Your task to perform on an android device: Check the settings for the Google Photos app Image 0: 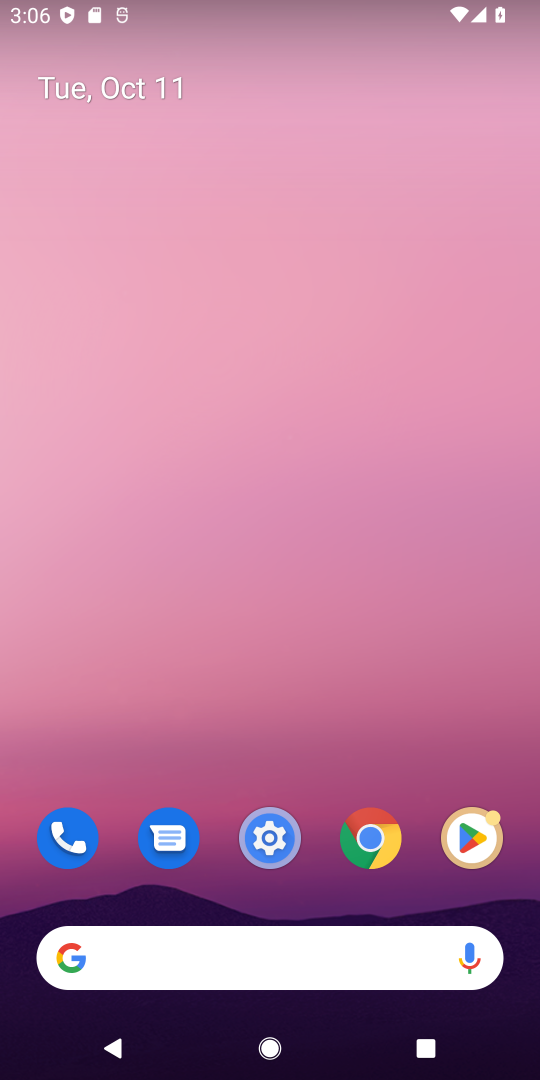
Step 0: drag from (279, 772) to (301, 208)
Your task to perform on an android device: Check the settings for the Google Photos app Image 1: 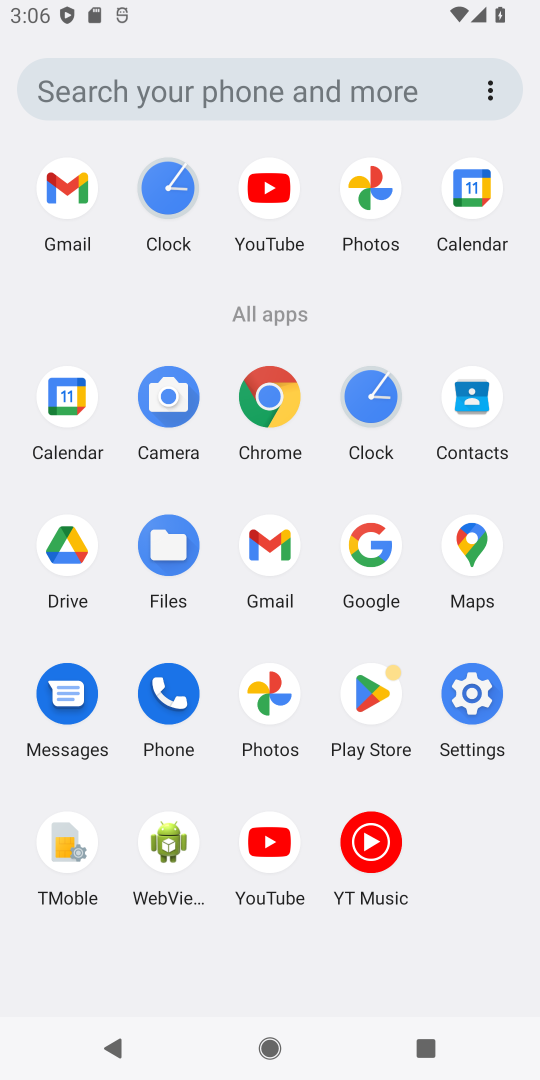
Step 1: click (375, 207)
Your task to perform on an android device: Check the settings for the Google Photos app Image 2: 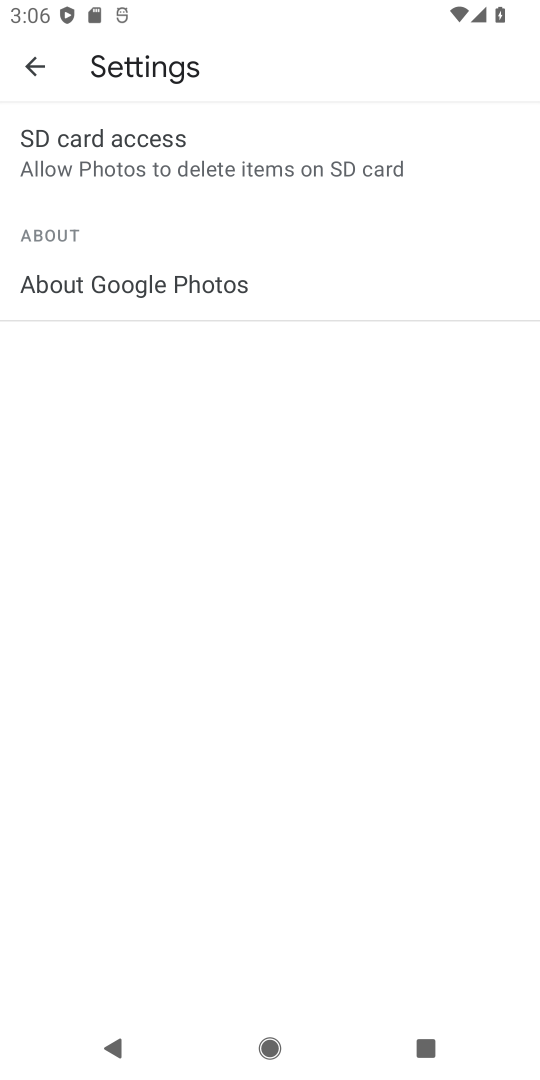
Step 2: click (18, 67)
Your task to perform on an android device: Check the settings for the Google Photos app Image 3: 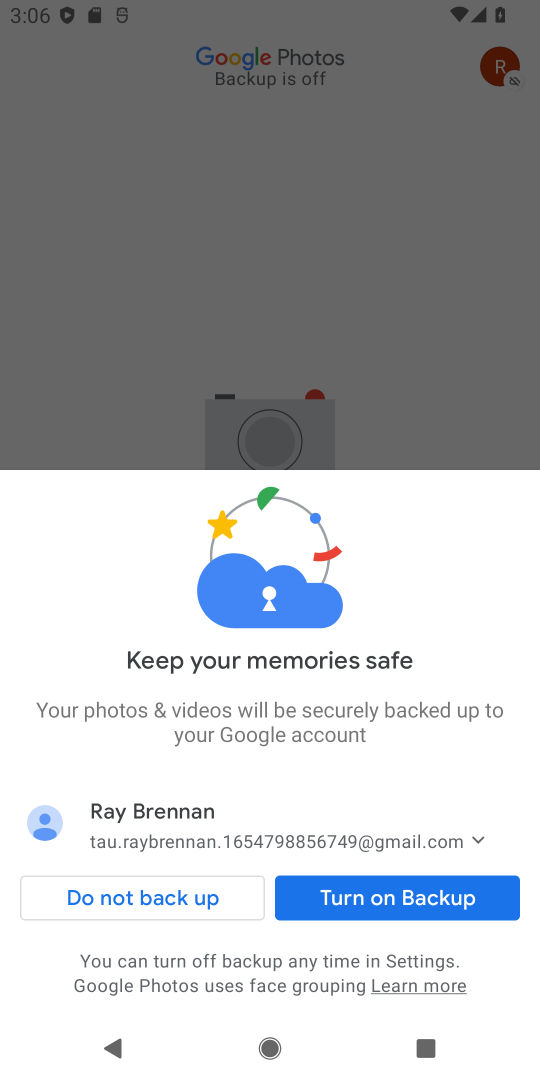
Step 3: click (218, 882)
Your task to perform on an android device: Check the settings for the Google Photos app Image 4: 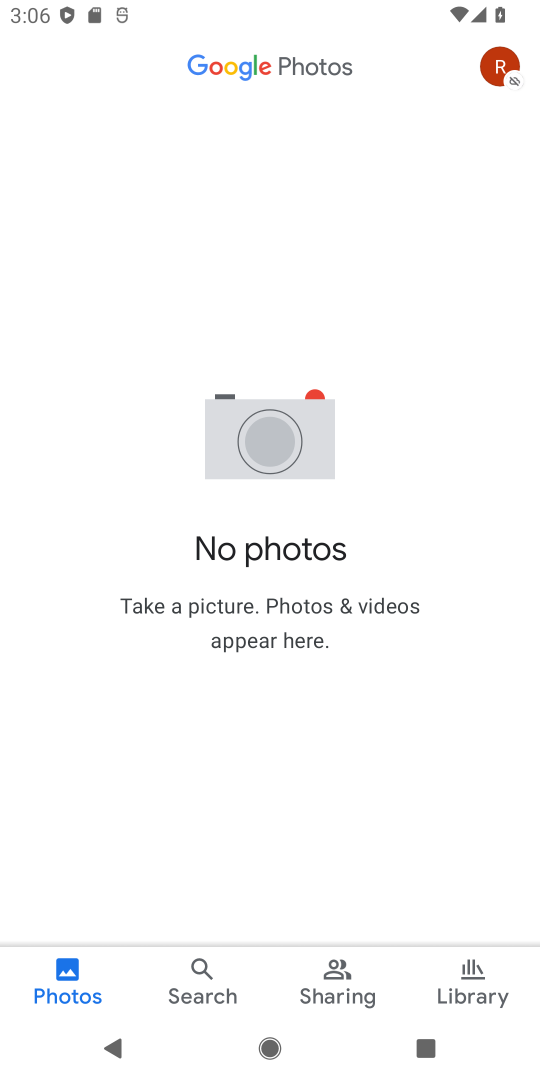
Step 4: click (509, 85)
Your task to perform on an android device: Check the settings for the Google Photos app Image 5: 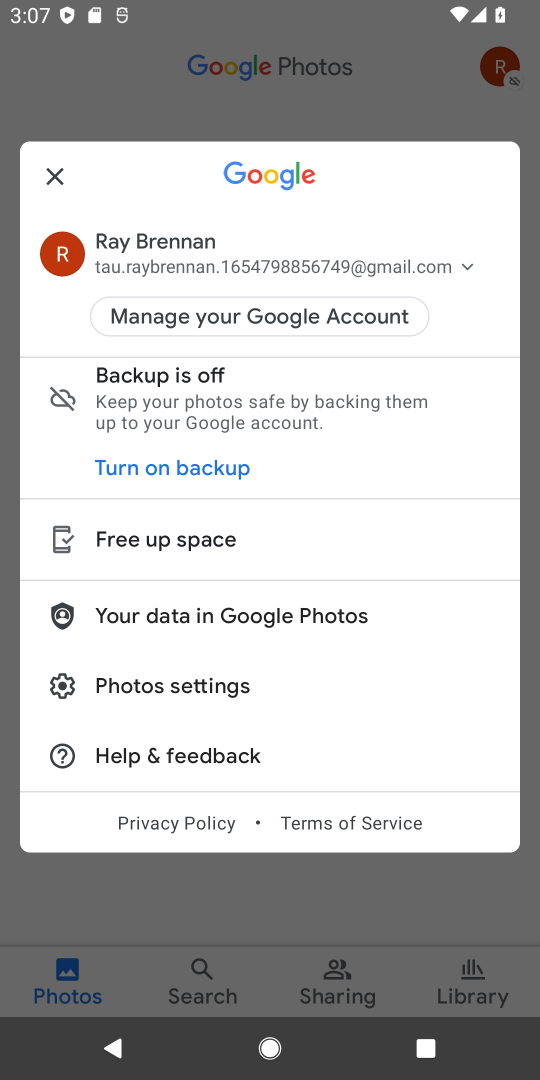
Step 5: drag from (292, 735) to (326, 294)
Your task to perform on an android device: Check the settings for the Google Photos app Image 6: 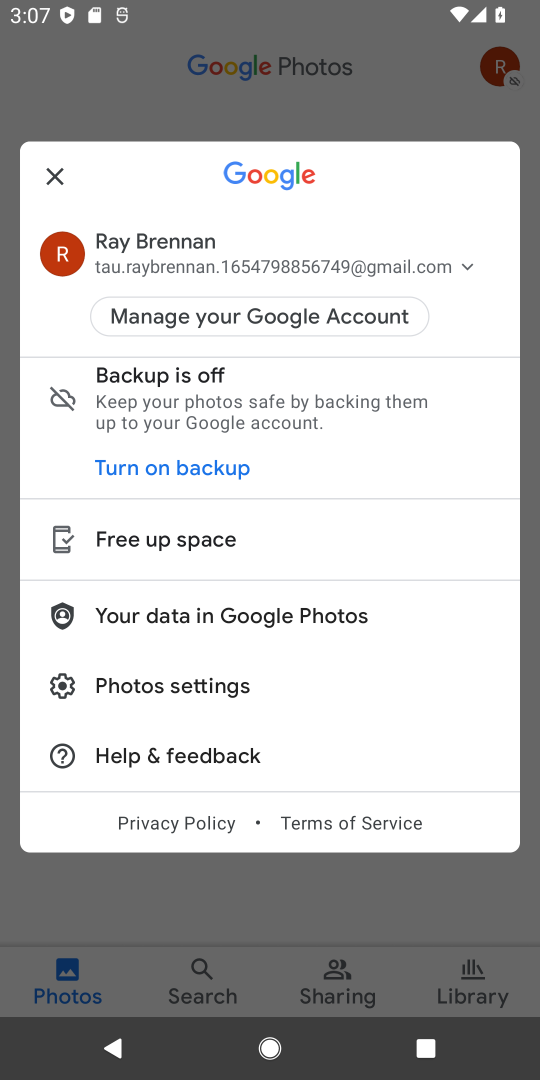
Step 6: click (246, 668)
Your task to perform on an android device: Check the settings for the Google Photos app Image 7: 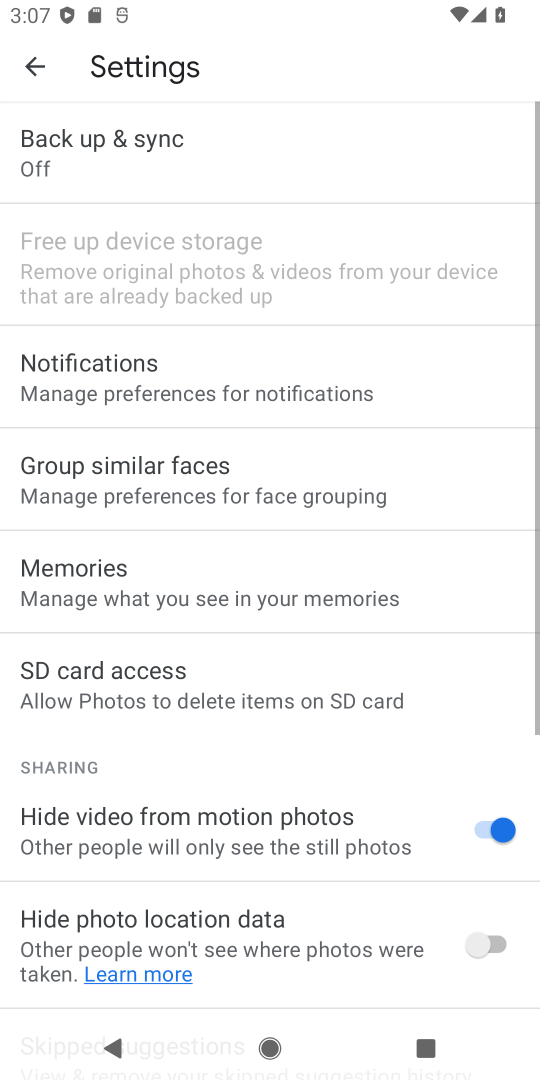
Step 7: task complete